Your task to perform on an android device: Check the news Image 0: 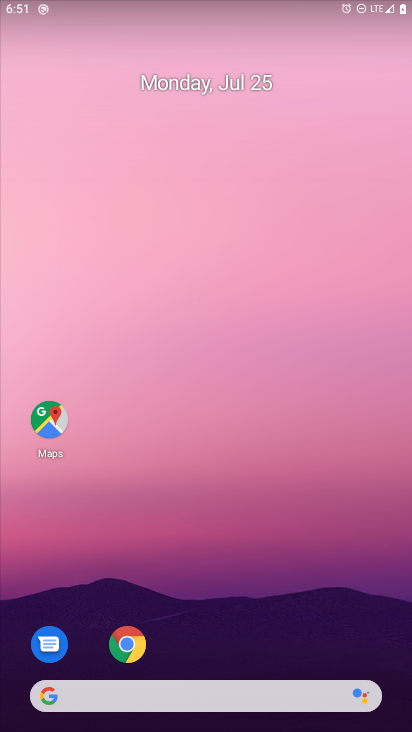
Step 0: press home button
Your task to perform on an android device: Check the news Image 1: 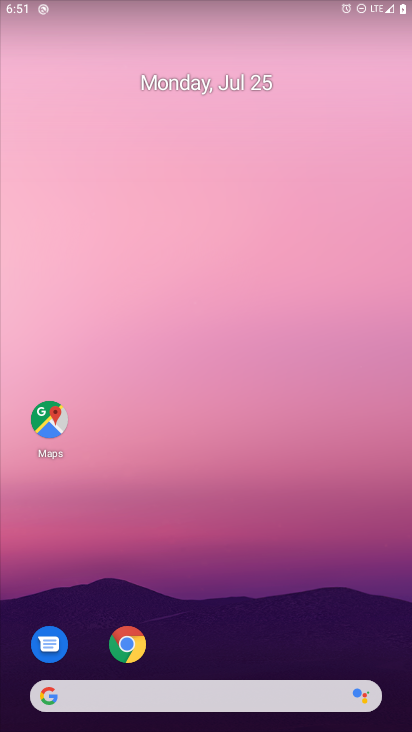
Step 1: click (54, 698)
Your task to perform on an android device: Check the news Image 2: 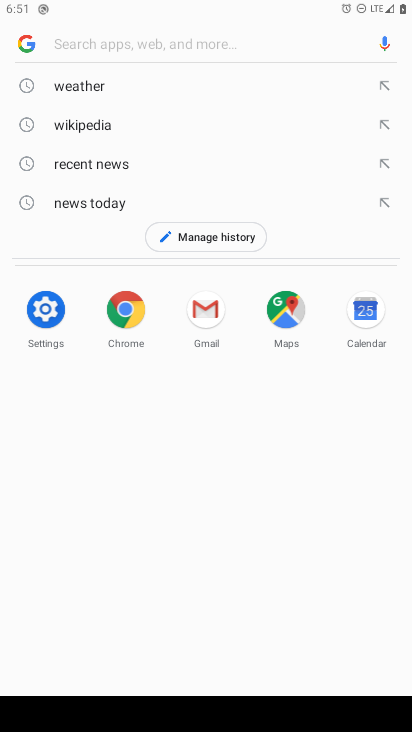
Step 2: type "news"
Your task to perform on an android device: Check the news Image 3: 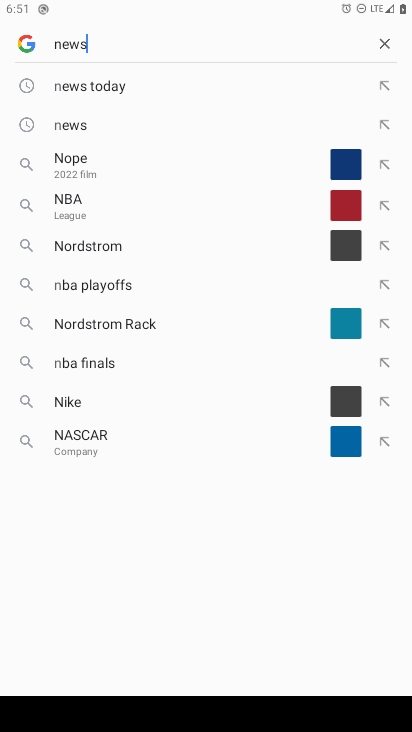
Step 3: press enter
Your task to perform on an android device: Check the news Image 4: 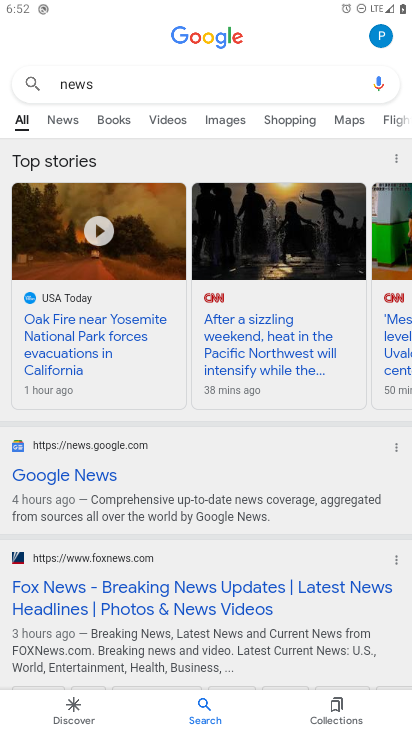
Step 4: task complete